Your task to perform on an android device: Open Google Chrome and click the shortcut for Amazon.com Image 0: 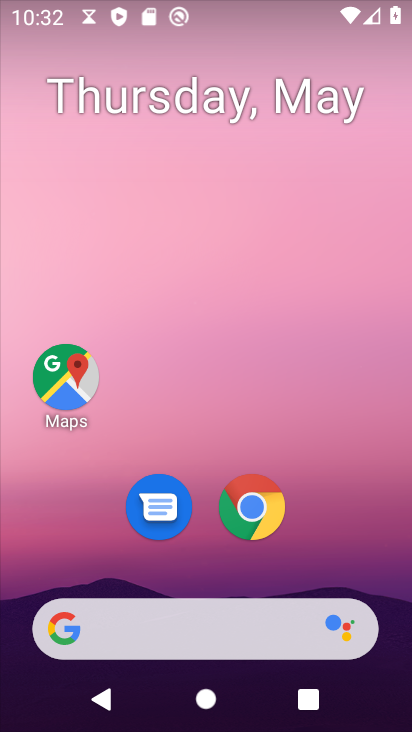
Step 0: drag from (332, 530) to (261, 0)
Your task to perform on an android device: Open Google Chrome and click the shortcut for Amazon.com Image 1: 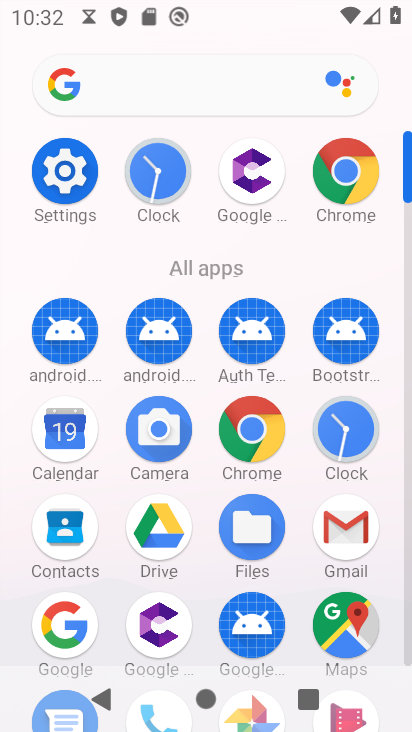
Step 1: drag from (10, 536) to (10, 258)
Your task to perform on an android device: Open Google Chrome and click the shortcut for Amazon.com Image 2: 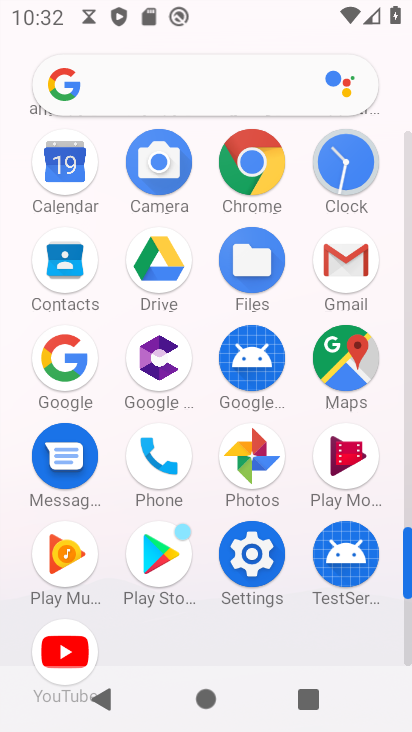
Step 2: click (253, 162)
Your task to perform on an android device: Open Google Chrome and click the shortcut for Amazon.com Image 3: 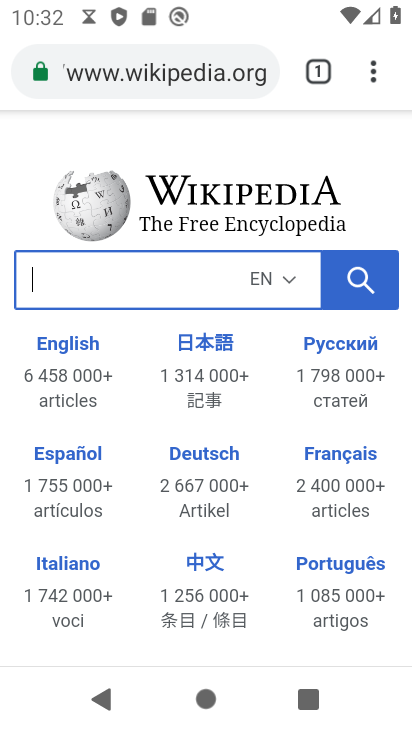
Step 3: click (163, 62)
Your task to perform on an android device: Open Google Chrome and click the shortcut for Amazon.com Image 4: 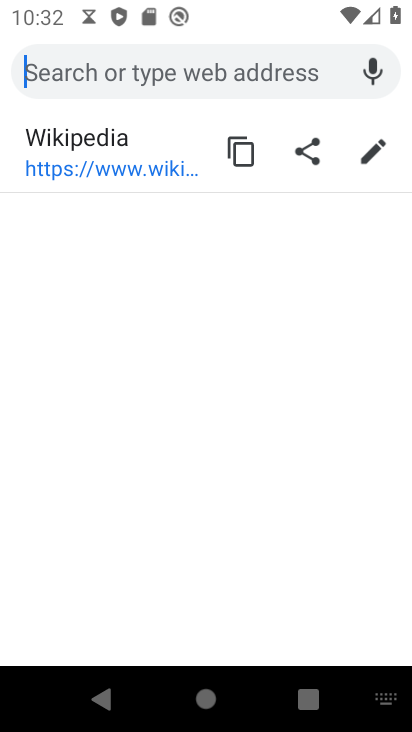
Step 4: type " Amazon.com"
Your task to perform on an android device: Open Google Chrome and click the shortcut for Amazon.com Image 5: 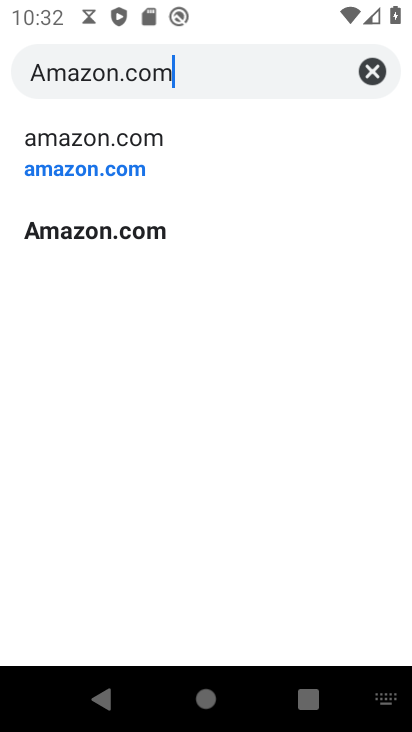
Step 5: type ""
Your task to perform on an android device: Open Google Chrome and click the shortcut for Amazon.com Image 6: 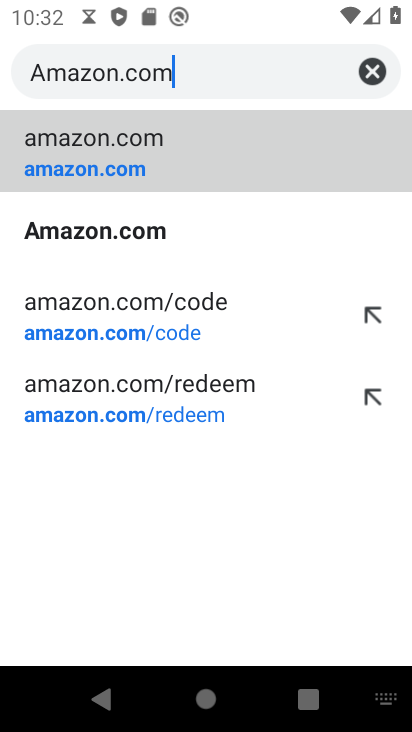
Step 6: click (139, 154)
Your task to perform on an android device: Open Google Chrome and click the shortcut for Amazon.com Image 7: 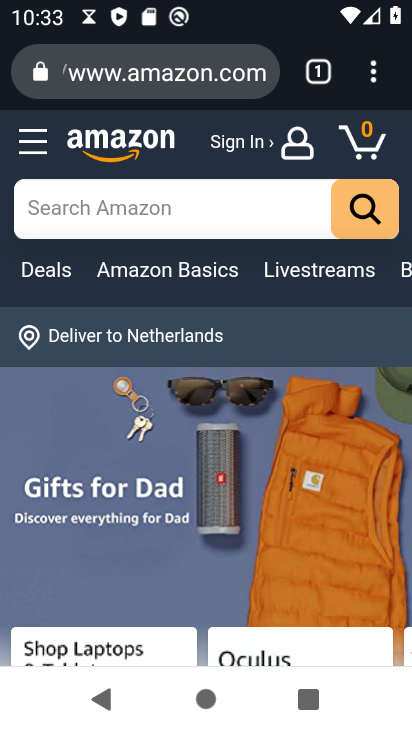
Step 7: task complete